Your task to perform on an android device: Add "dell xps" to the cart on newegg, then select checkout. Image 0: 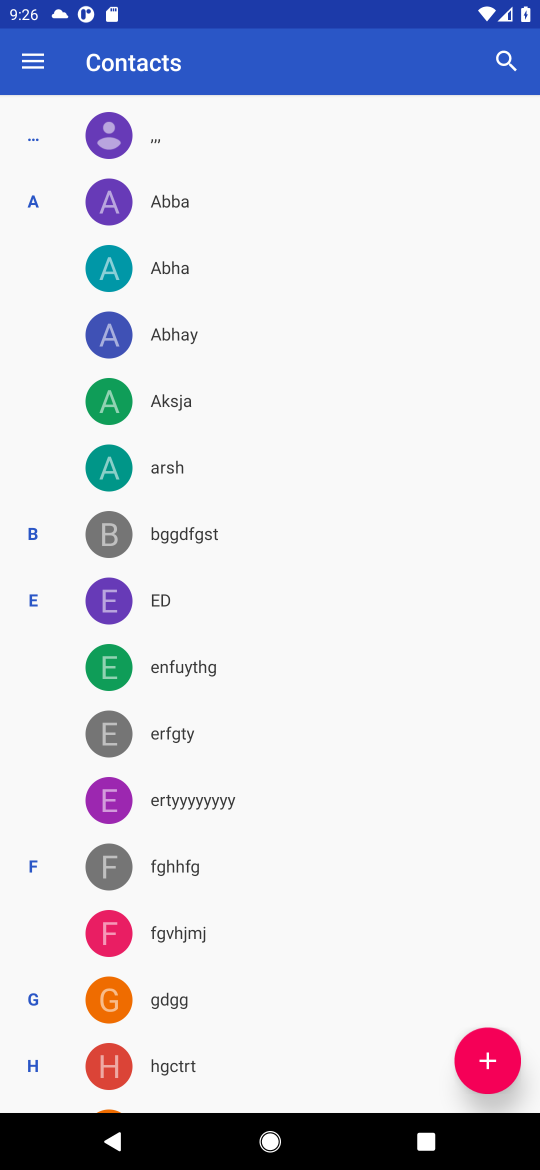
Step 0: press home button
Your task to perform on an android device: Add "dell xps" to the cart on newegg, then select checkout. Image 1: 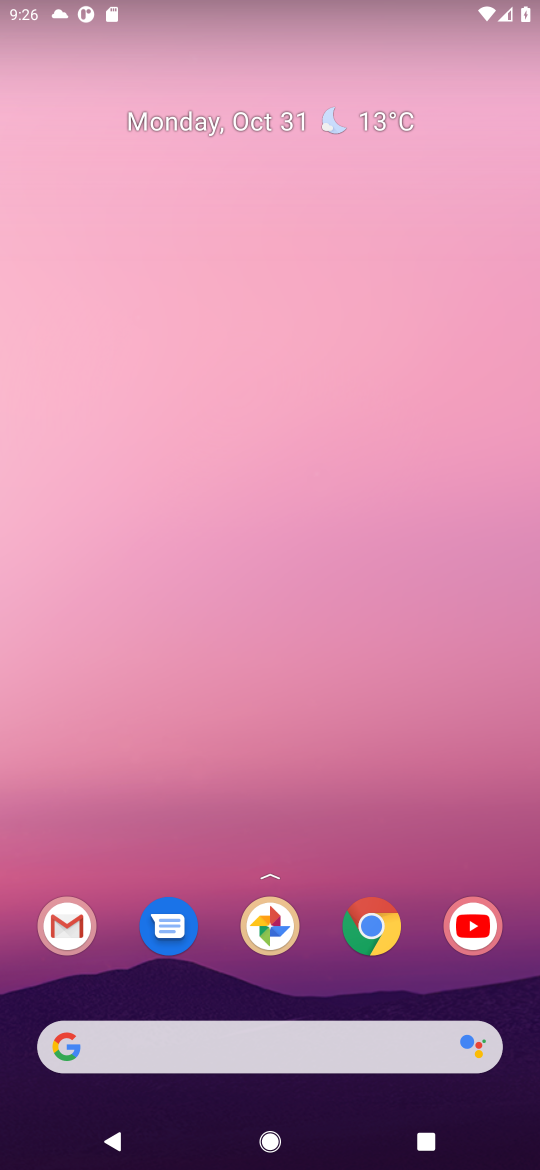
Step 1: click (313, 1054)
Your task to perform on an android device: Add "dell xps" to the cart on newegg, then select checkout. Image 2: 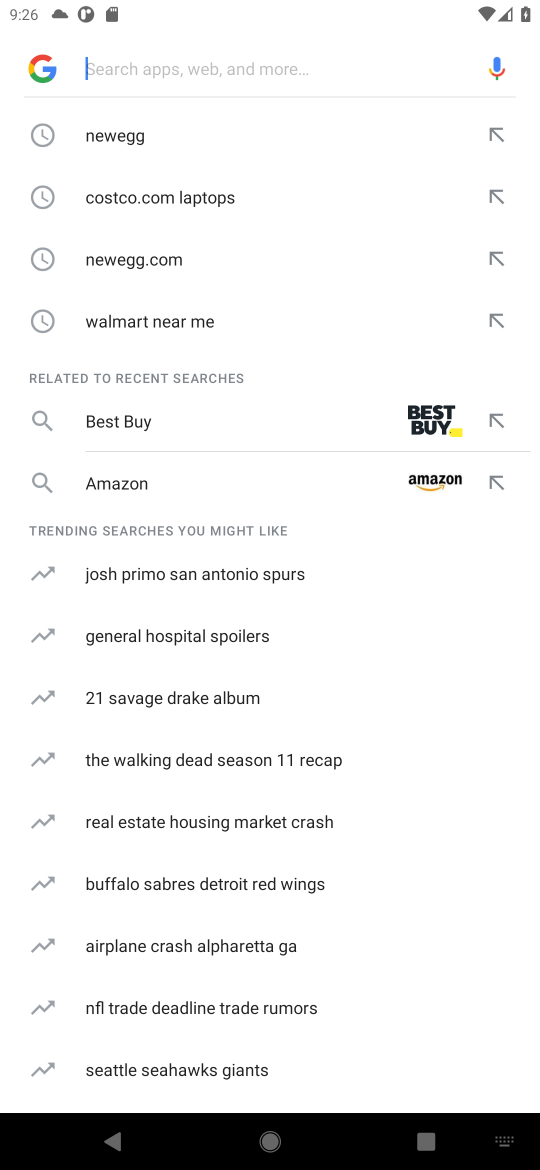
Step 2: click (142, 259)
Your task to perform on an android device: Add "dell xps" to the cart on newegg, then select checkout. Image 3: 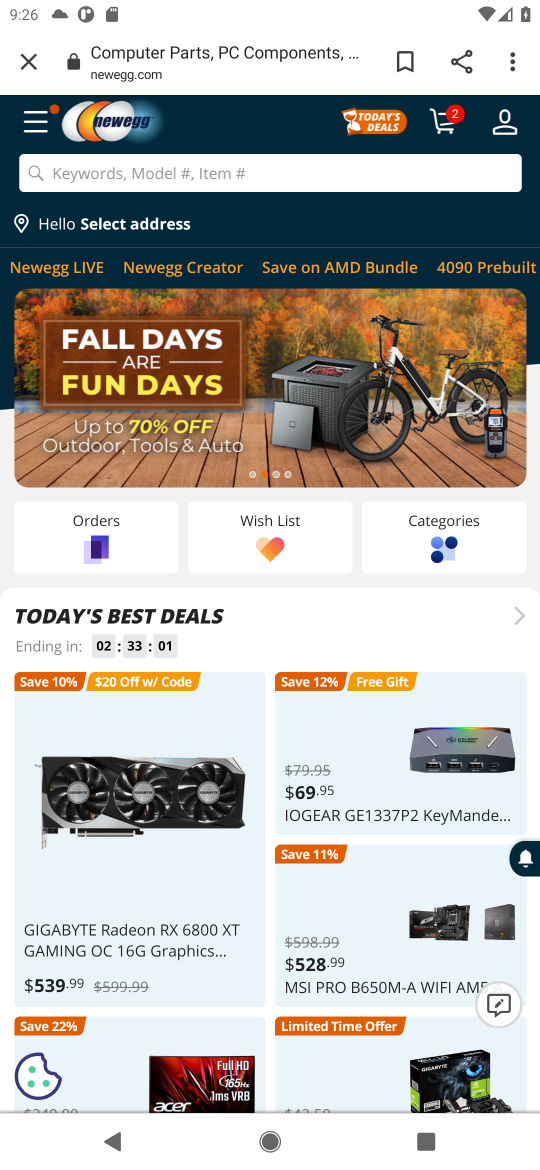
Step 3: click (128, 168)
Your task to perform on an android device: Add "dell xps" to the cart on newegg, then select checkout. Image 4: 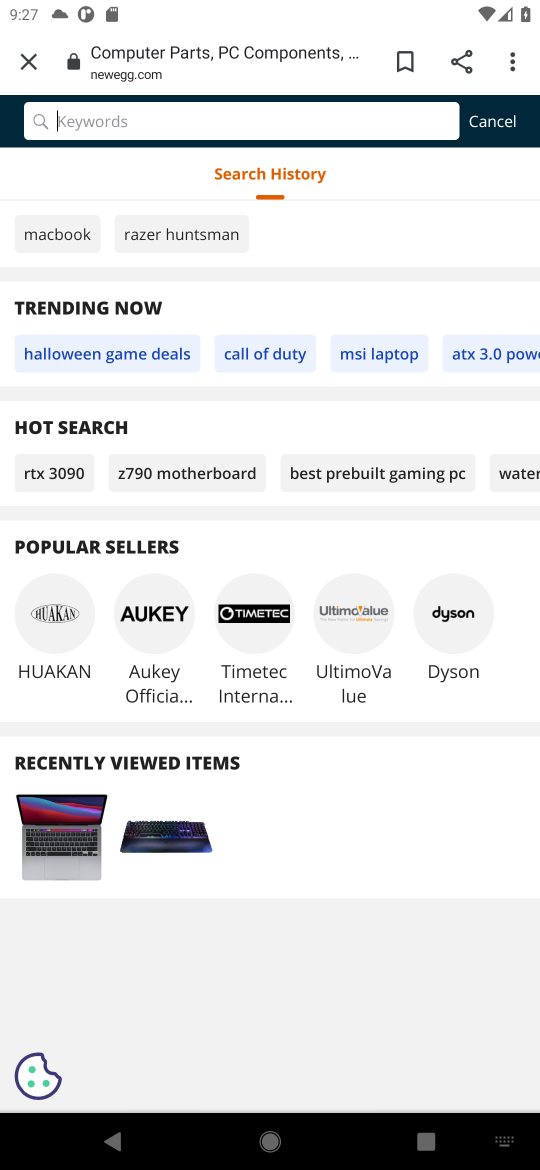
Step 4: type "dell xps"
Your task to perform on an android device: Add "dell xps" to the cart on newegg, then select checkout. Image 5: 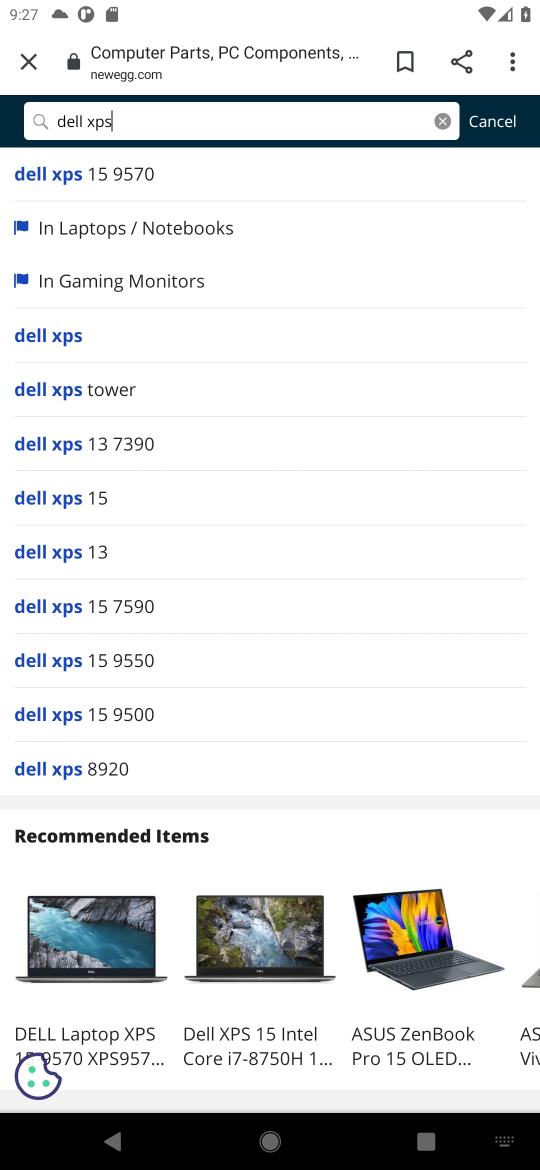
Step 5: click (125, 227)
Your task to perform on an android device: Add "dell xps" to the cart on newegg, then select checkout. Image 6: 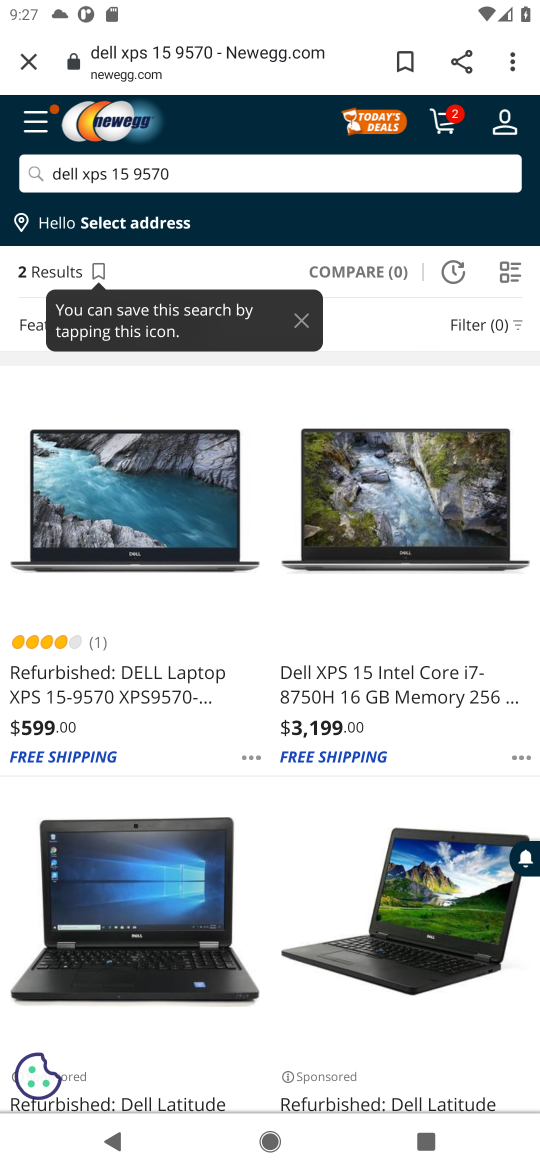
Step 6: click (87, 685)
Your task to perform on an android device: Add "dell xps" to the cart on newegg, then select checkout. Image 7: 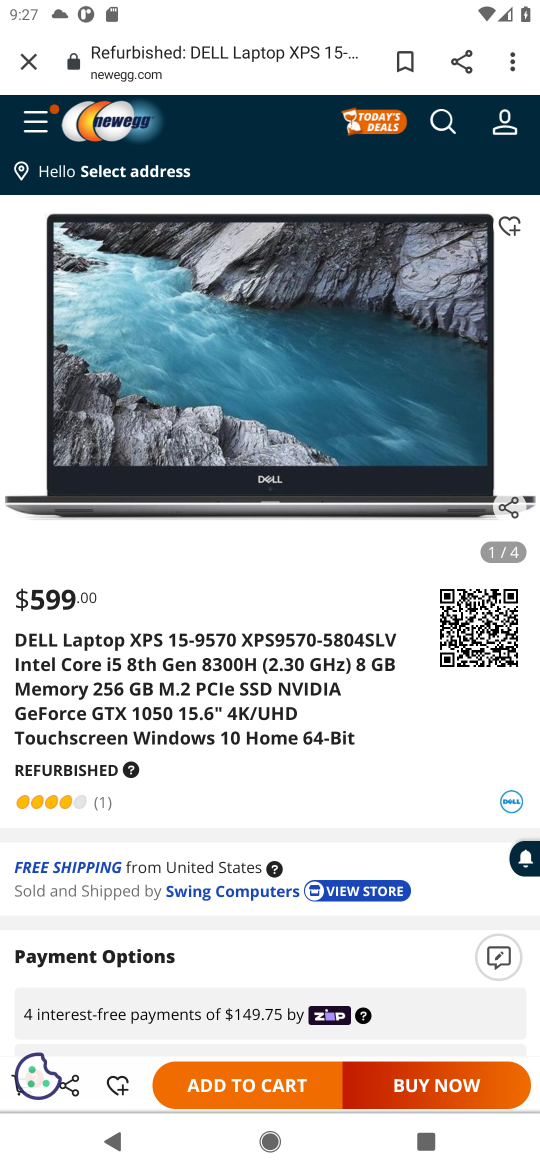
Step 7: click (209, 1084)
Your task to perform on an android device: Add "dell xps" to the cart on newegg, then select checkout. Image 8: 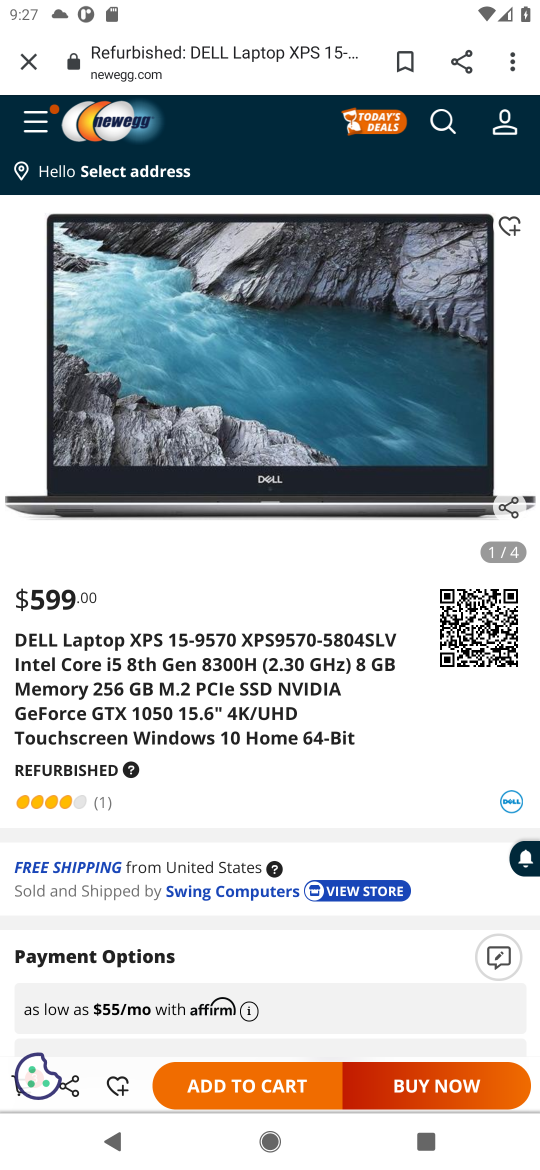
Step 8: task complete